Your task to perform on an android device: create a new album in the google photos Image 0: 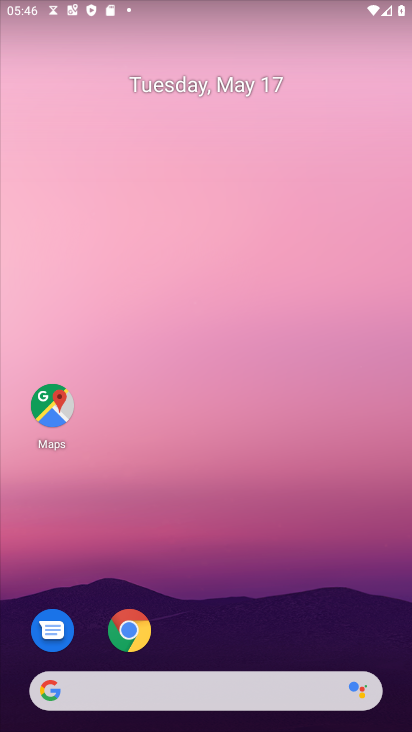
Step 0: drag from (245, 589) to (262, 64)
Your task to perform on an android device: create a new album in the google photos Image 1: 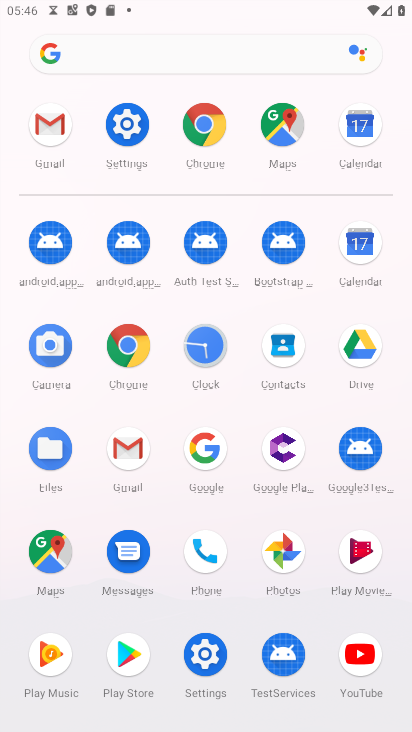
Step 1: click (291, 545)
Your task to perform on an android device: create a new album in the google photos Image 2: 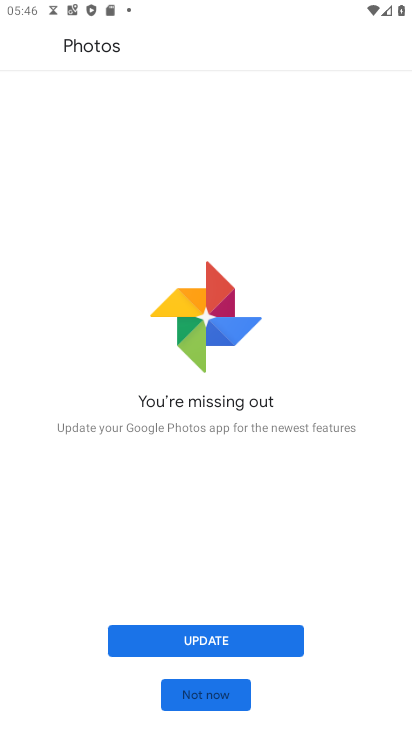
Step 2: click (254, 642)
Your task to perform on an android device: create a new album in the google photos Image 3: 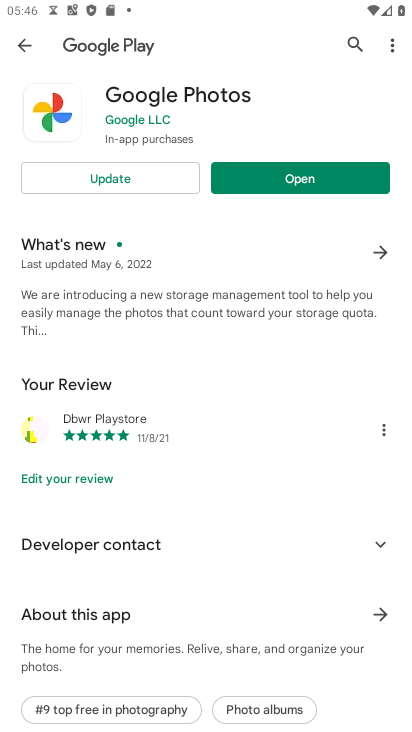
Step 3: click (157, 177)
Your task to perform on an android device: create a new album in the google photos Image 4: 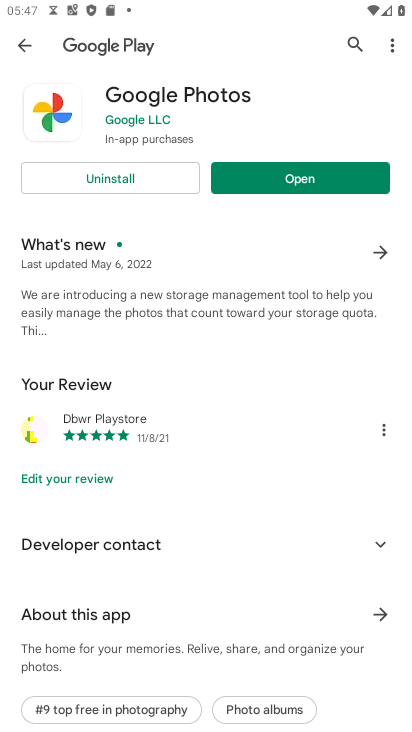
Step 4: click (348, 173)
Your task to perform on an android device: create a new album in the google photos Image 5: 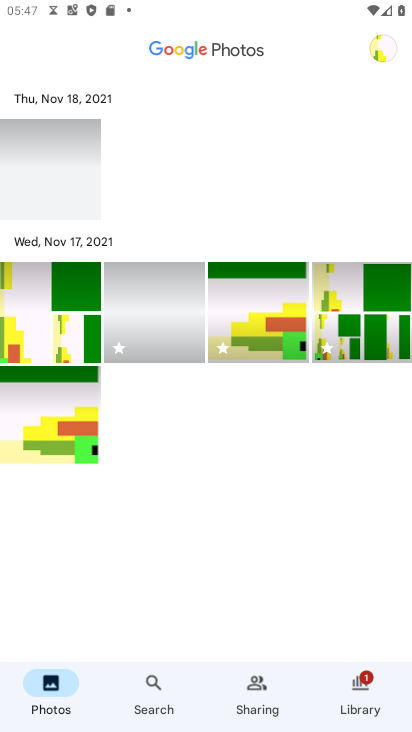
Step 5: click (81, 310)
Your task to perform on an android device: create a new album in the google photos Image 6: 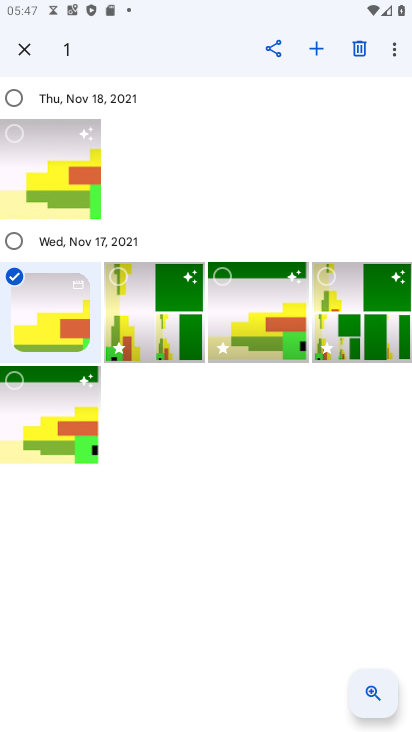
Step 6: click (165, 288)
Your task to perform on an android device: create a new album in the google photos Image 7: 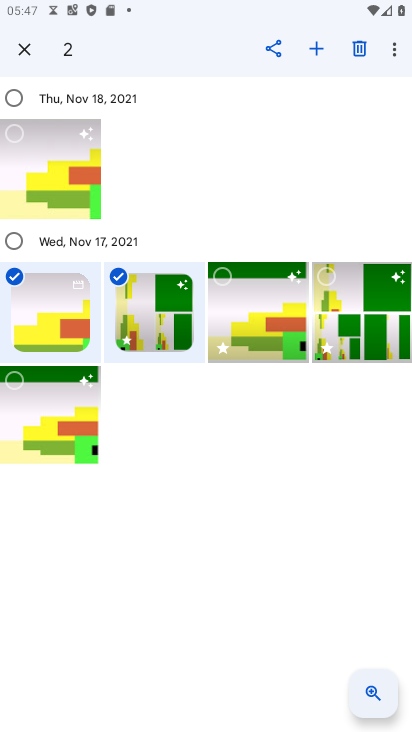
Step 7: click (317, 44)
Your task to perform on an android device: create a new album in the google photos Image 8: 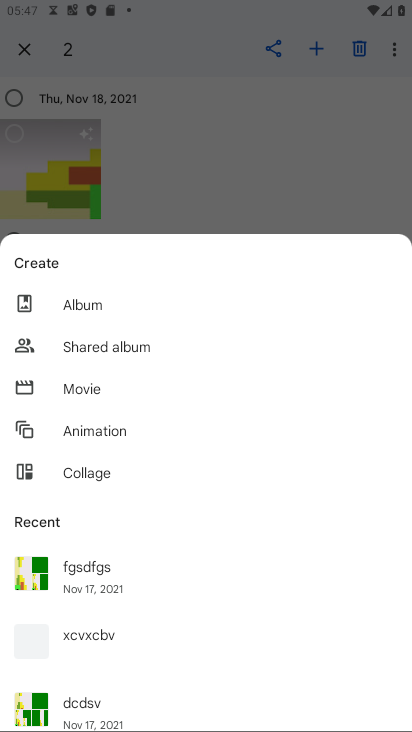
Step 8: click (86, 307)
Your task to perform on an android device: create a new album in the google photos Image 9: 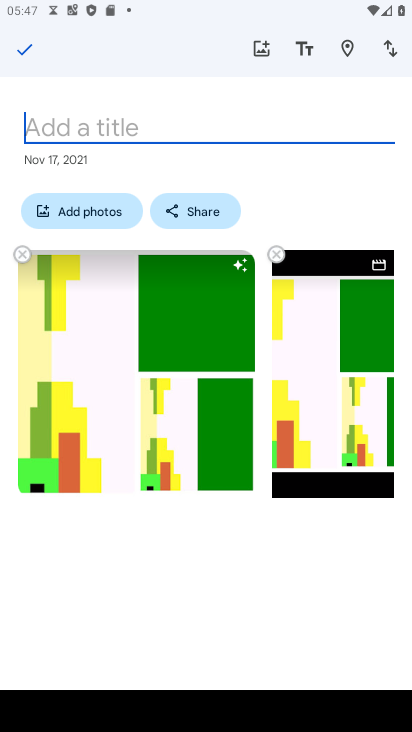
Step 9: type "mmmkkk"
Your task to perform on an android device: create a new album in the google photos Image 10: 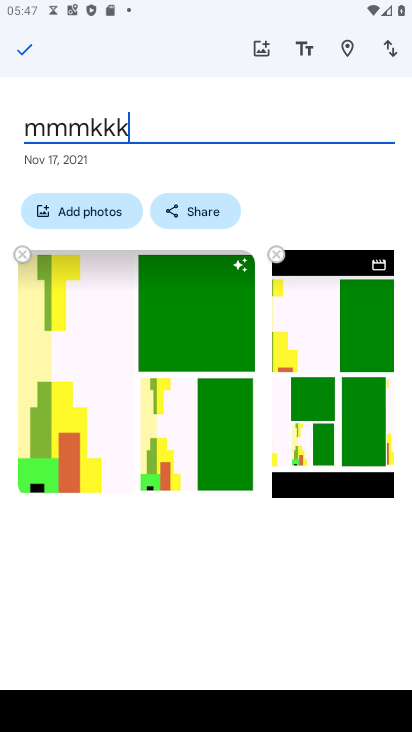
Step 10: click (19, 46)
Your task to perform on an android device: create a new album in the google photos Image 11: 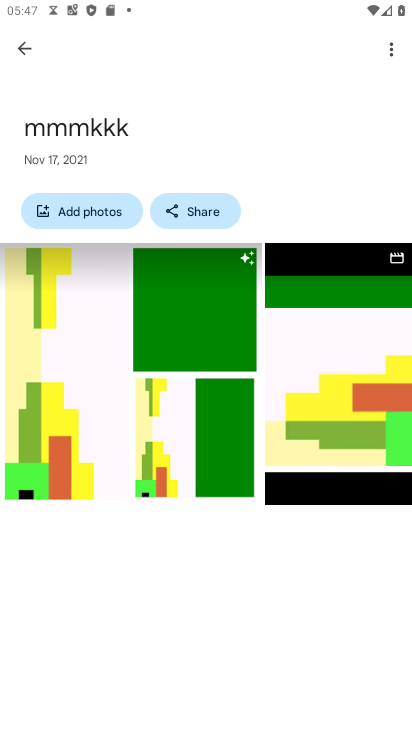
Step 11: task complete